Your task to perform on an android device: turn on notifications settings in the gmail app Image 0: 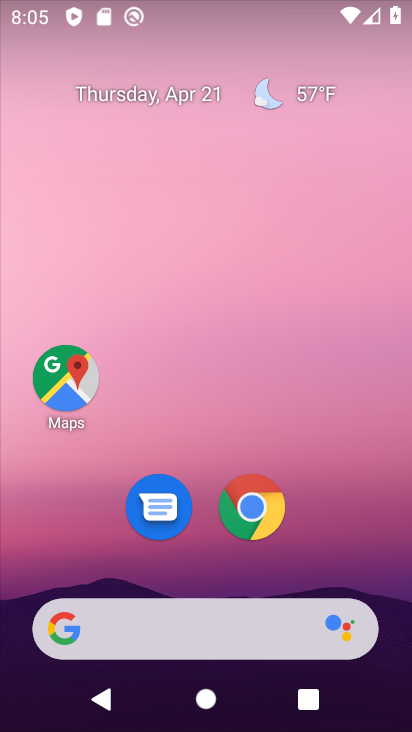
Step 0: drag from (371, 559) to (232, 0)
Your task to perform on an android device: turn on notifications settings in the gmail app Image 1: 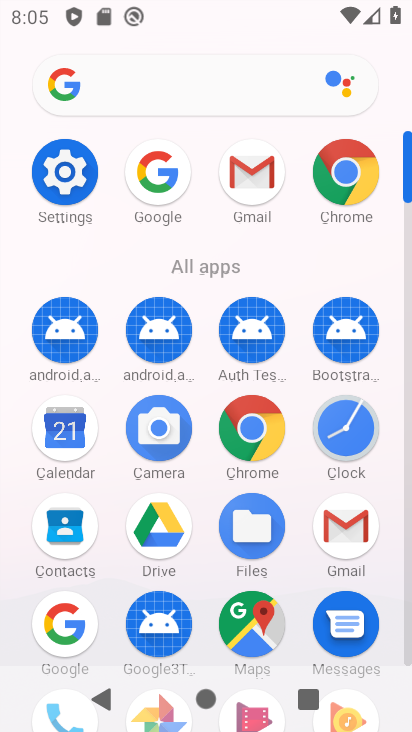
Step 1: click (258, 171)
Your task to perform on an android device: turn on notifications settings in the gmail app Image 2: 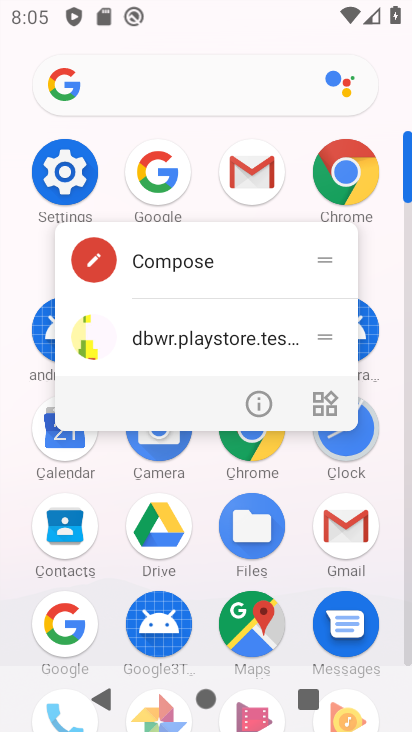
Step 2: click (259, 391)
Your task to perform on an android device: turn on notifications settings in the gmail app Image 3: 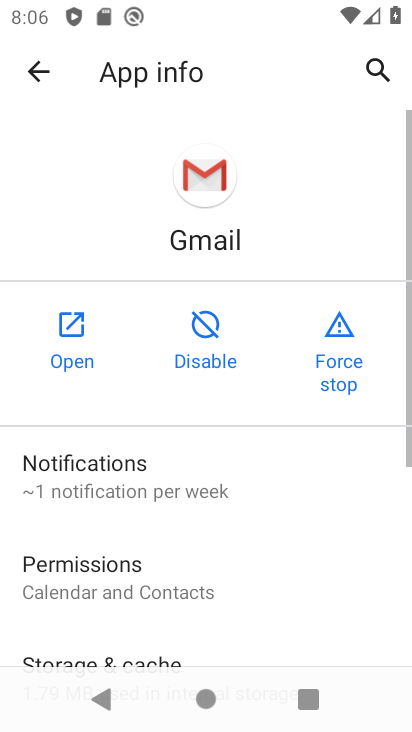
Step 3: click (190, 474)
Your task to perform on an android device: turn on notifications settings in the gmail app Image 4: 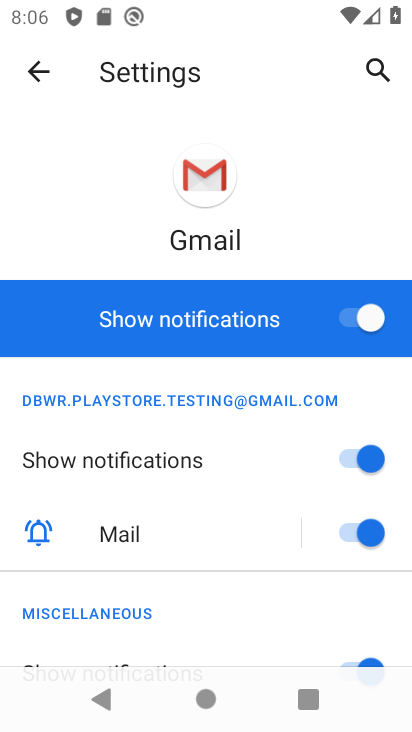
Step 4: task complete